Your task to perform on an android device: move a message to another label in the gmail app Image 0: 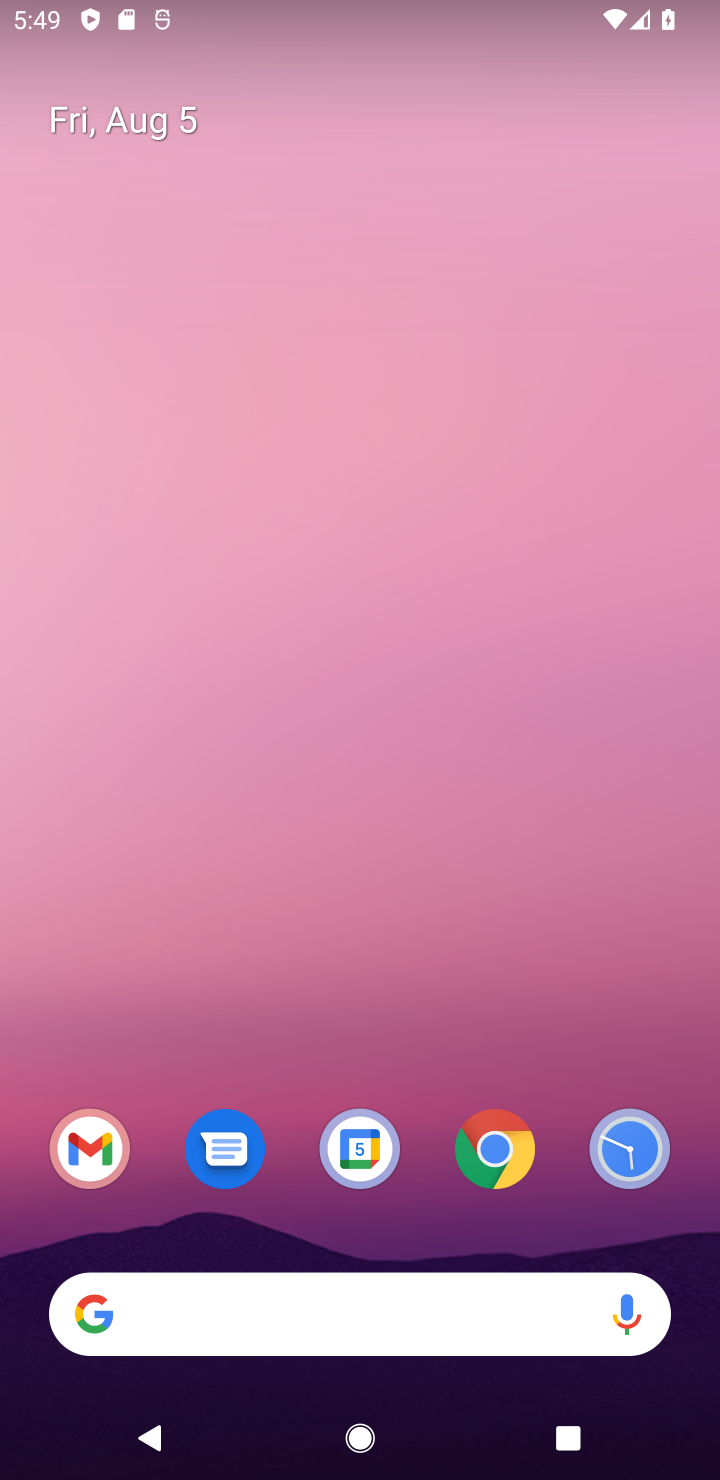
Step 0: click (73, 1153)
Your task to perform on an android device: move a message to another label in the gmail app Image 1: 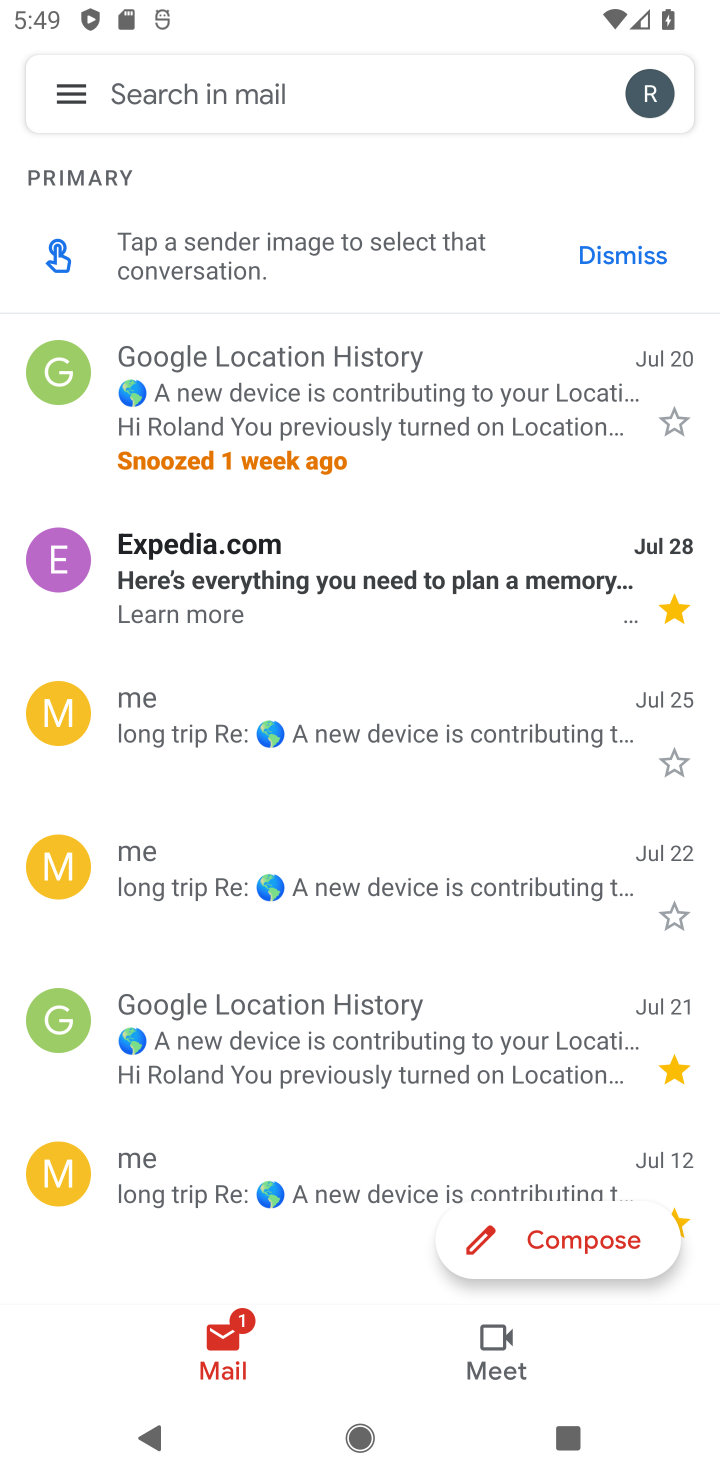
Step 1: click (319, 560)
Your task to perform on an android device: move a message to another label in the gmail app Image 2: 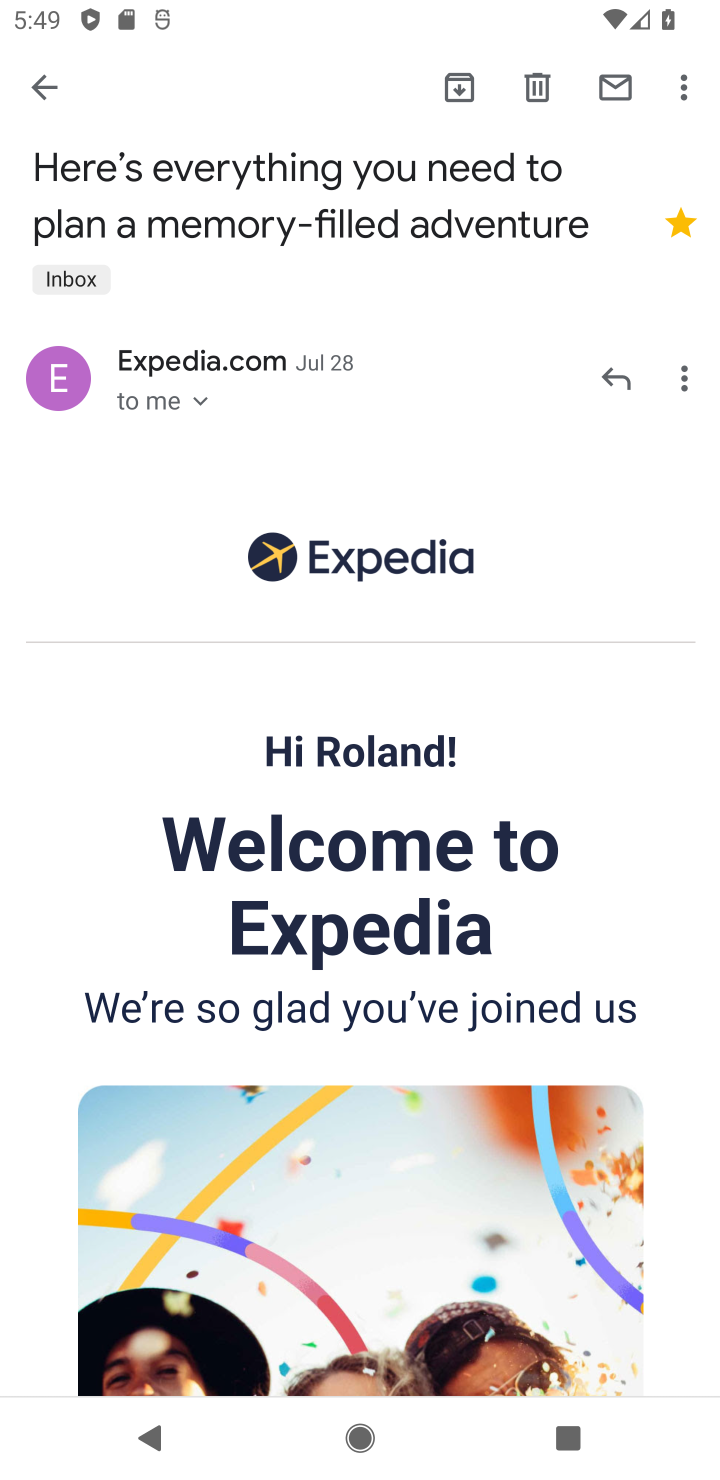
Step 2: click (682, 95)
Your task to perform on an android device: move a message to another label in the gmail app Image 3: 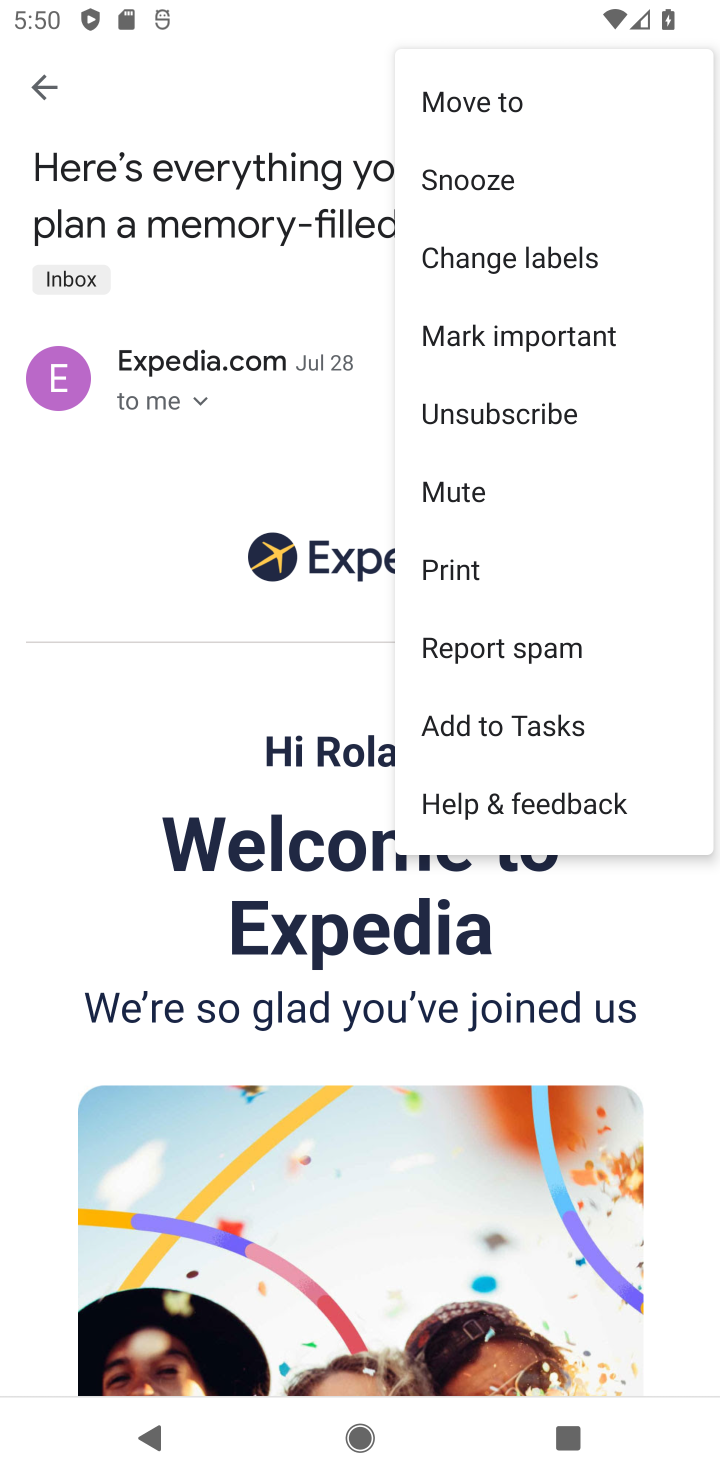
Step 3: click (476, 261)
Your task to perform on an android device: move a message to another label in the gmail app Image 4: 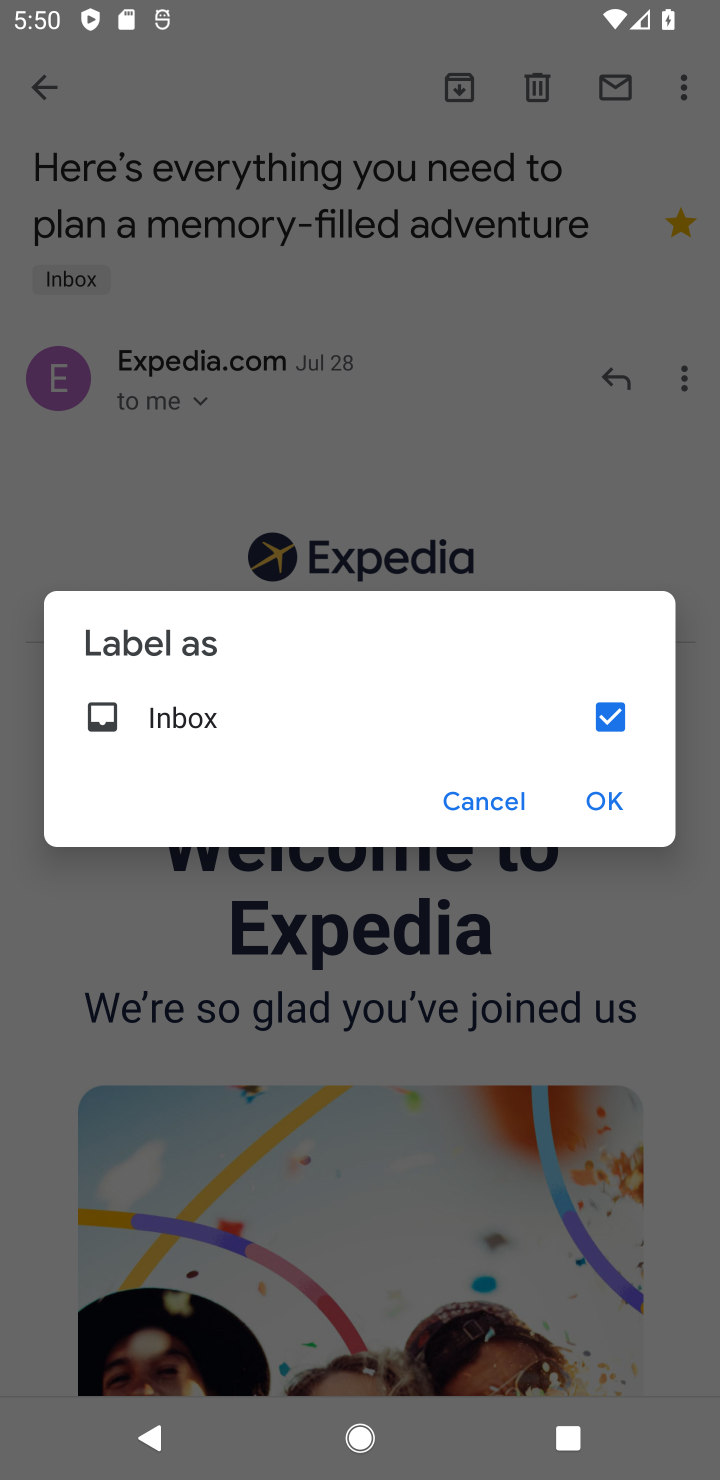
Step 4: click (594, 799)
Your task to perform on an android device: move a message to another label in the gmail app Image 5: 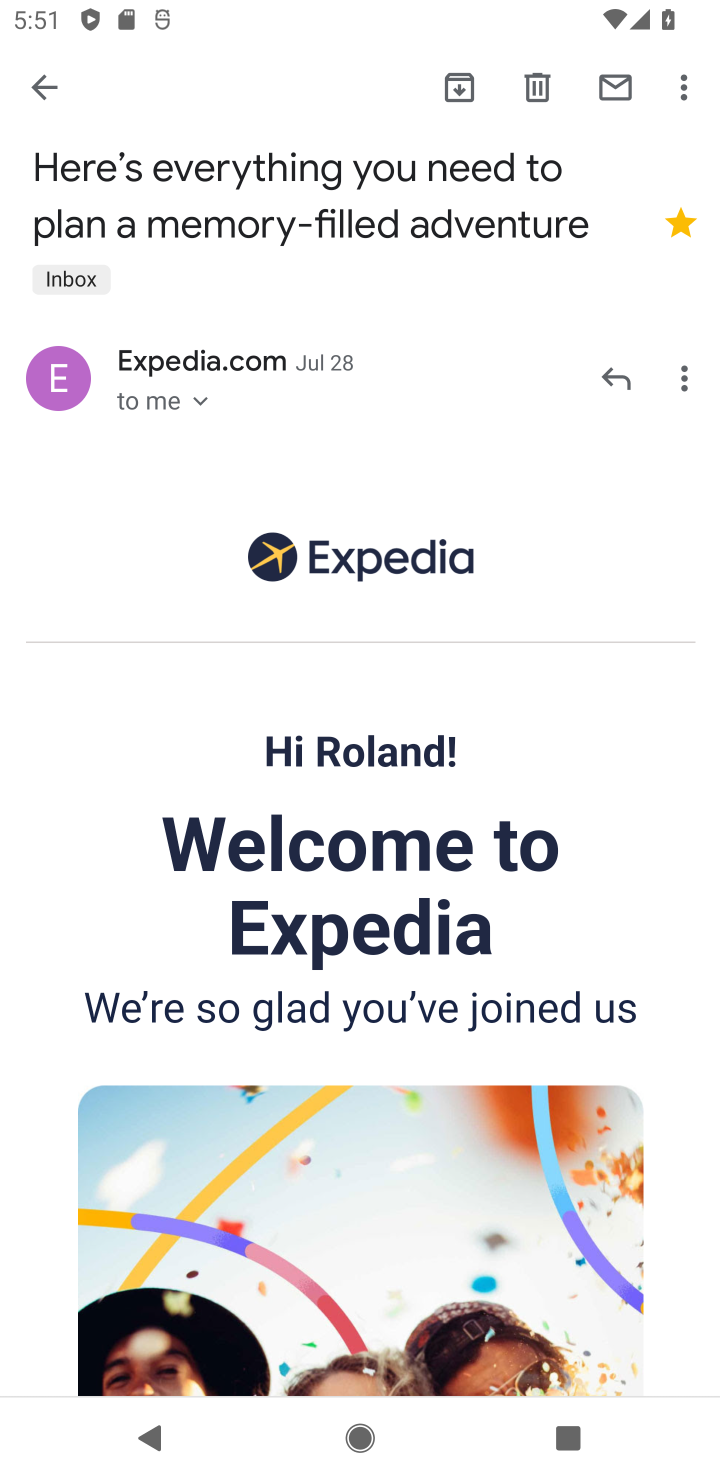
Step 5: task complete